Your task to perform on an android device: Go to wifi settings Image 0: 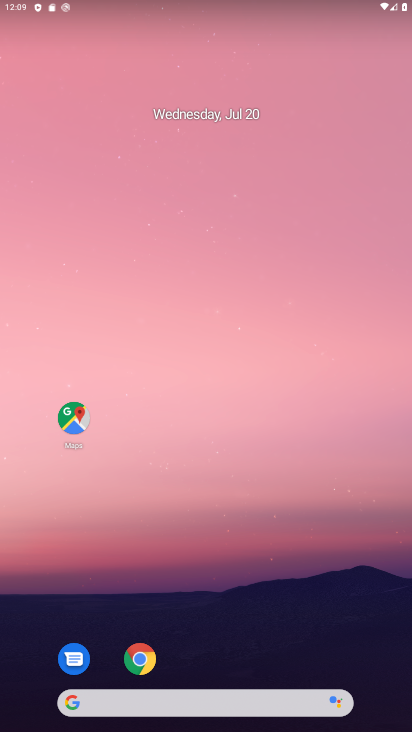
Step 0: press home button
Your task to perform on an android device: Go to wifi settings Image 1: 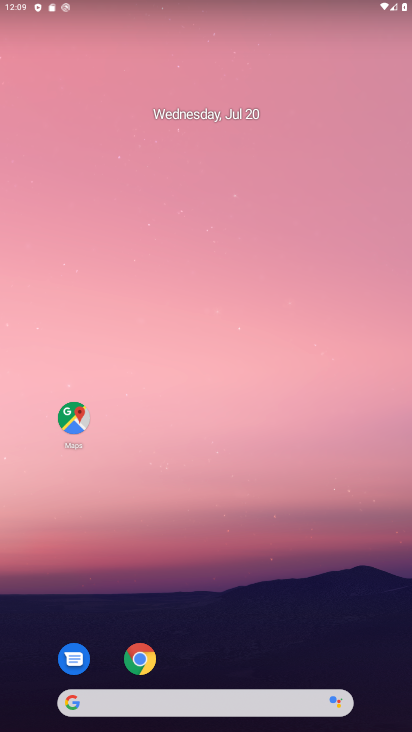
Step 1: drag from (217, 669) to (213, 0)
Your task to perform on an android device: Go to wifi settings Image 2: 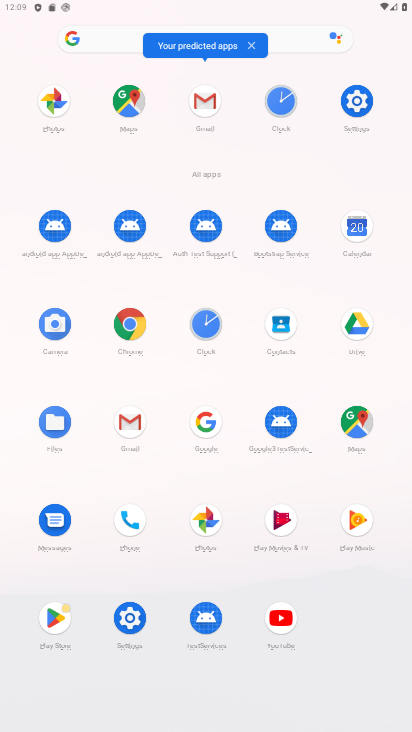
Step 2: drag from (122, 2) to (131, 327)
Your task to perform on an android device: Go to wifi settings Image 3: 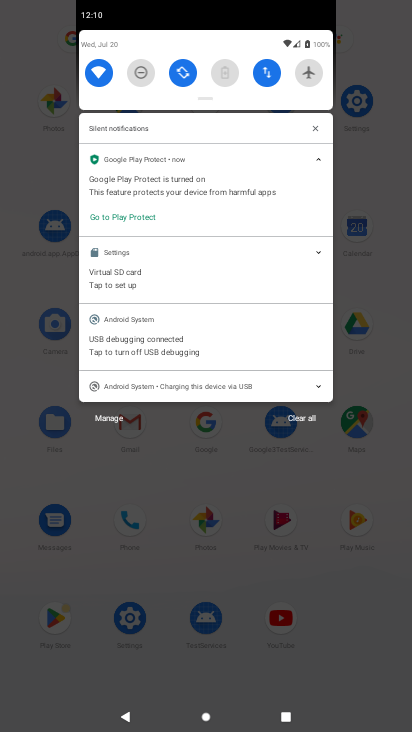
Step 3: click (98, 71)
Your task to perform on an android device: Go to wifi settings Image 4: 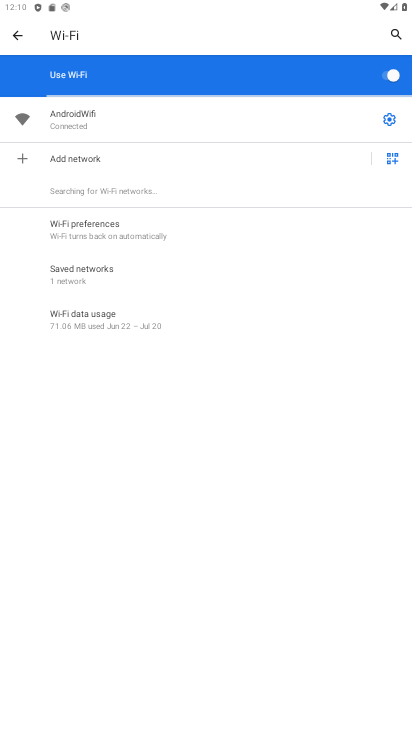
Step 4: task complete